Your task to perform on an android device: Open Chrome and go to the settings page Image 0: 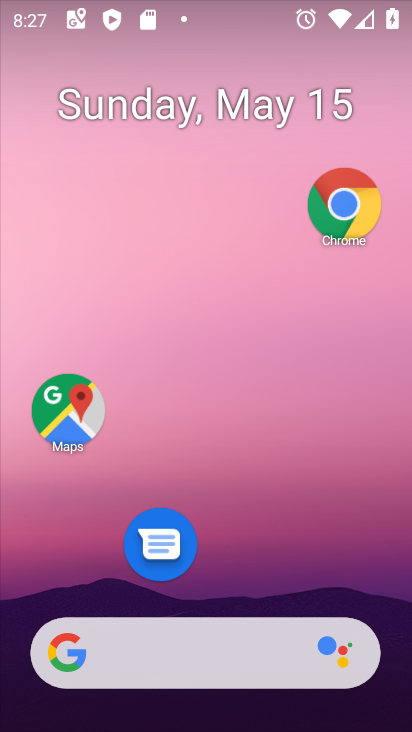
Step 0: click (339, 185)
Your task to perform on an android device: Open Chrome and go to the settings page Image 1: 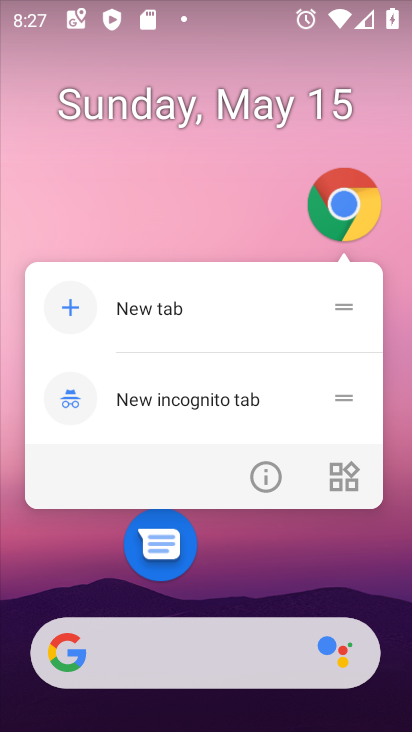
Step 1: click (339, 185)
Your task to perform on an android device: Open Chrome and go to the settings page Image 2: 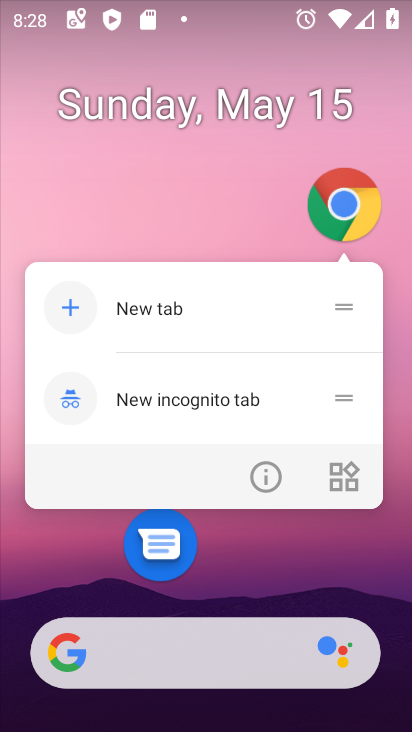
Step 2: click (329, 220)
Your task to perform on an android device: Open Chrome and go to the settings page Image 3: 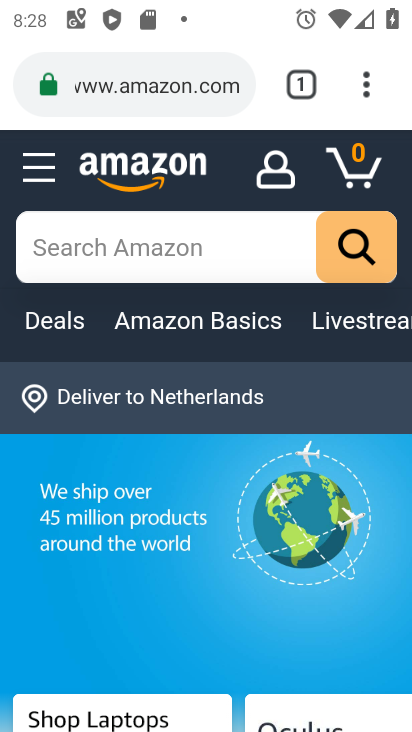
Step 3: click (367, 79)
Your task to perform on an android device: Open Chrome and go to the settings page Image 4: 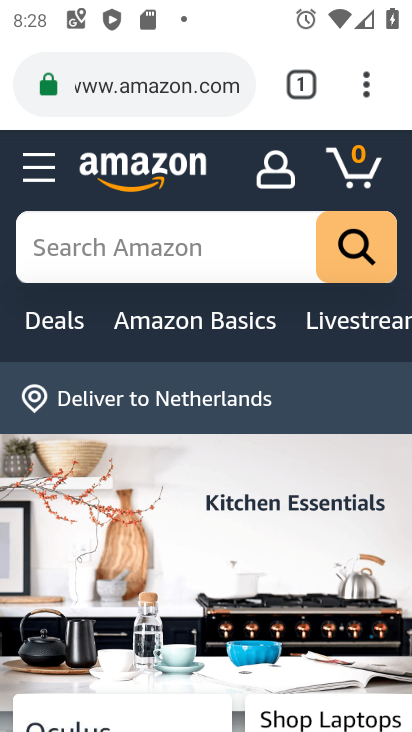
Step 4: click (369, 80)
Your task to perform on an android device: Open Chrome and go to the settings page Image 5: 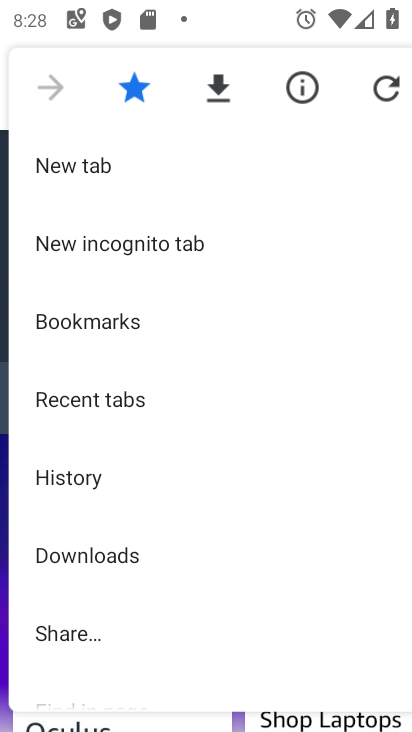
Step 5: drag from (187, 597) to (239, 293)
Your task to perform on an android device: Open Chrome and go to the settings page Image 6: 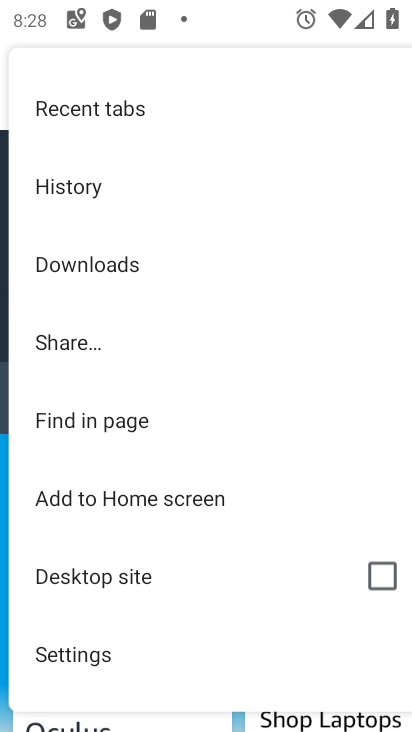
Step 6: click (118, 659)
Your task to perform on an android device: Open Chrome and go to the settings page Image 7: 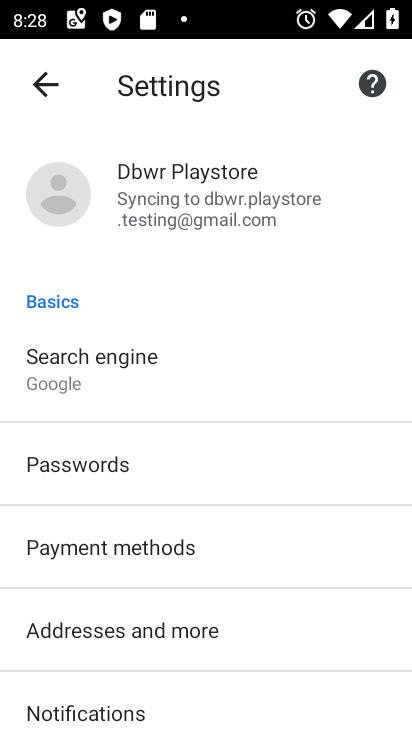
Step 7: task complete